Your task to perform on an android device: turn off javascript in the chrome app Image 0: 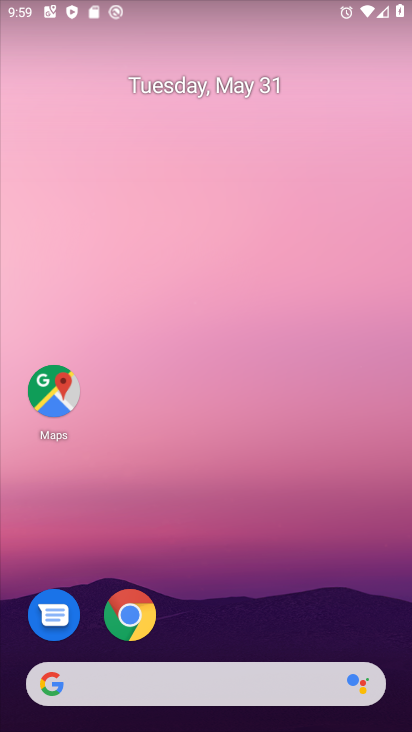
Step 0: drag from (312, 496) to (282, 17)
Your task to perform on an android device: turn off javascript in the chrome app Image 1: 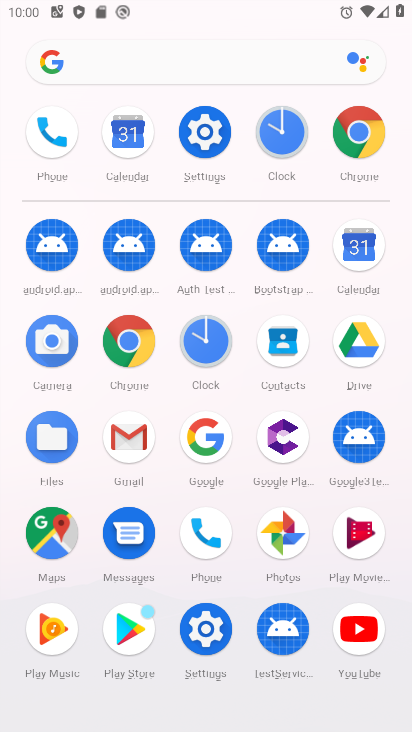
Step 1: click (378, 136)
Your task to perform on an android device: turn off javascript in the chrome app Image 2: 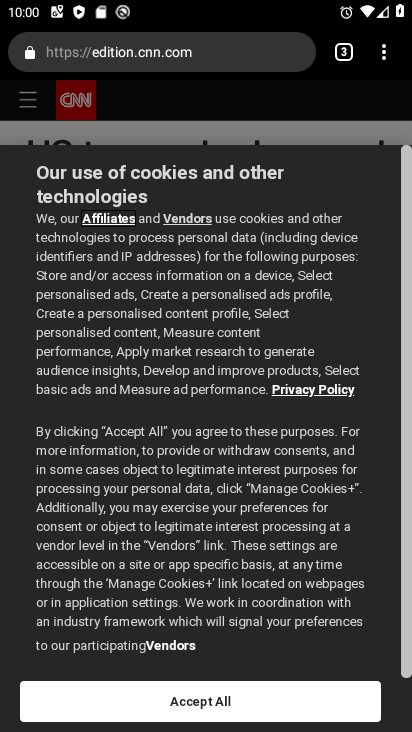
Step 2: drag from (383, 65) to (254, 582)
Your task to perform on an android device: turn off javascript in the chrome app Image 3: 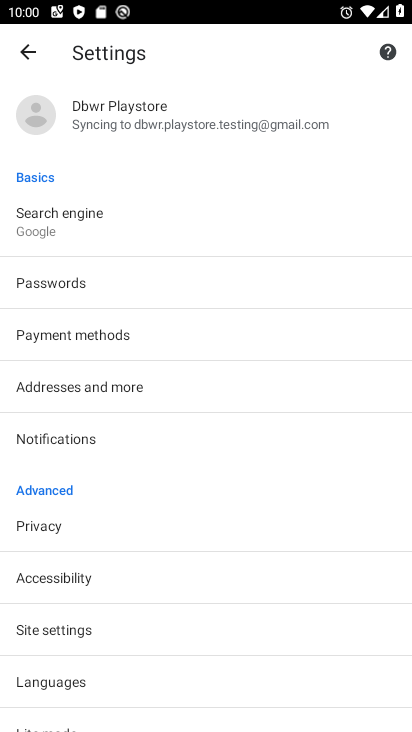
Step 3: drag from (257, 581) to (262, 179)
Your task to perform on an android device: turn off javascript in the chrome app Image 4: 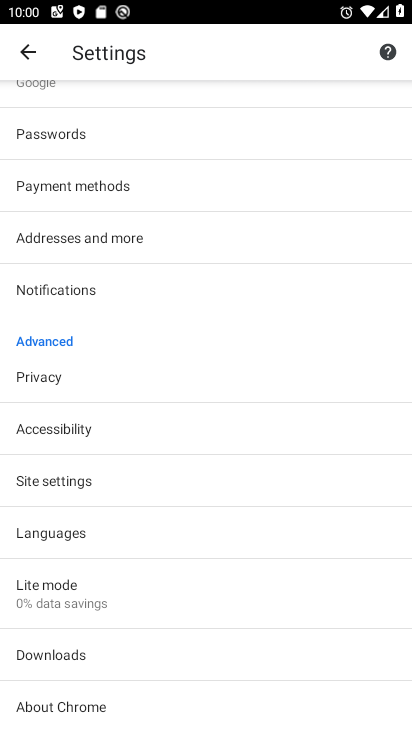
Step 4: click (138, 482)
Your task to perform on an android device: turn off javascript in the chrome app Image 5: 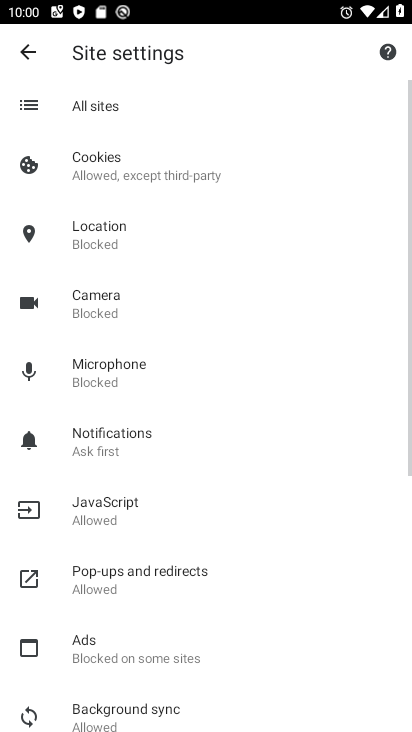
Step 5: click (138, 508)
Your task to perform on an android device: turn off javascript in the chrome app Image 6: 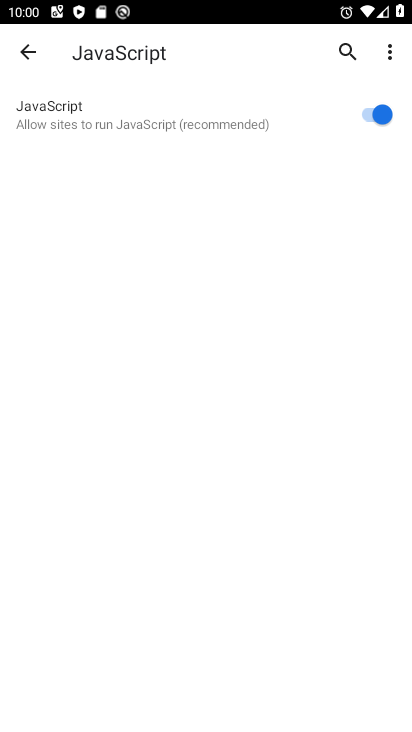
Step 6: click (377, 115)
Your task to perform on an android device: turn off javascript in the chrome app Image 7: 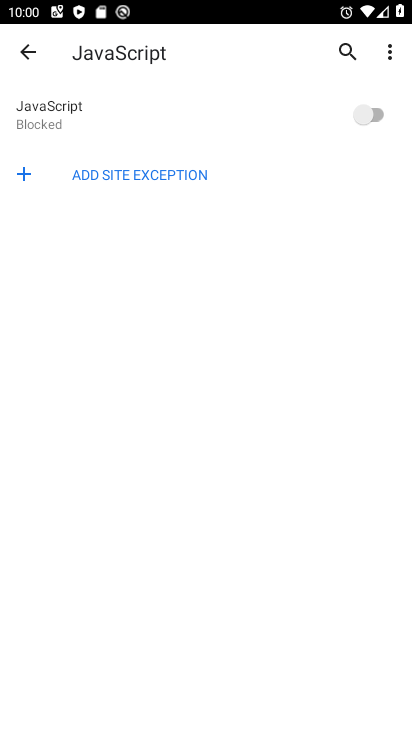
Step 7: task complete